Your task to perform on an android device: change the upload size in google photos Image 0: 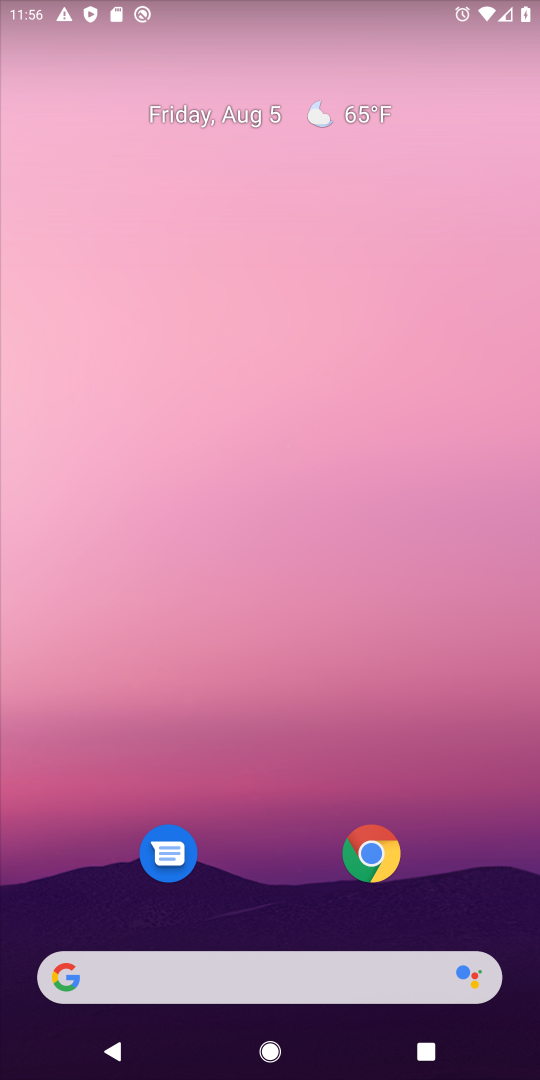
Step 0: drag from (231, 981) to (295, 164)
Your task to perform on an android device: change the upload size in google photos Image 1: 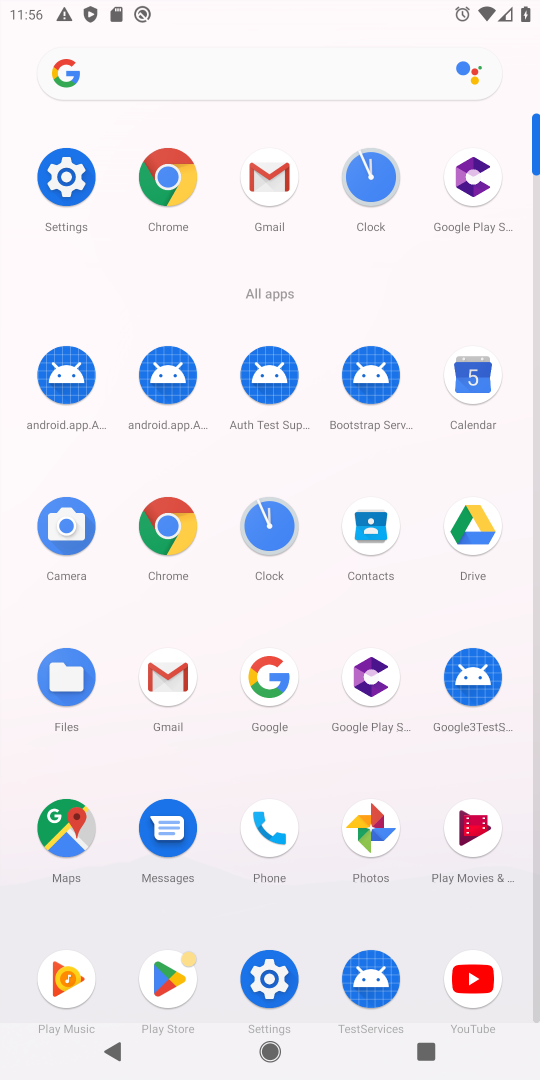
Step 1: click (353, 848)
Your task to perform on an android device: change the upload size in google photos Image 2: 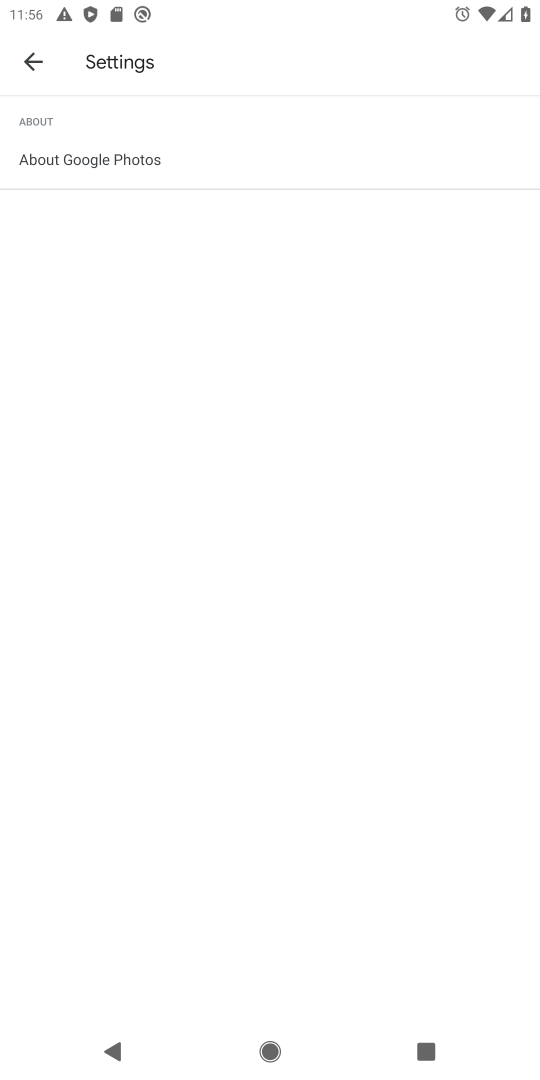
Step 2: click (26, 56)
Your task to perform on an android device: change the upload size in google photos Image 3: 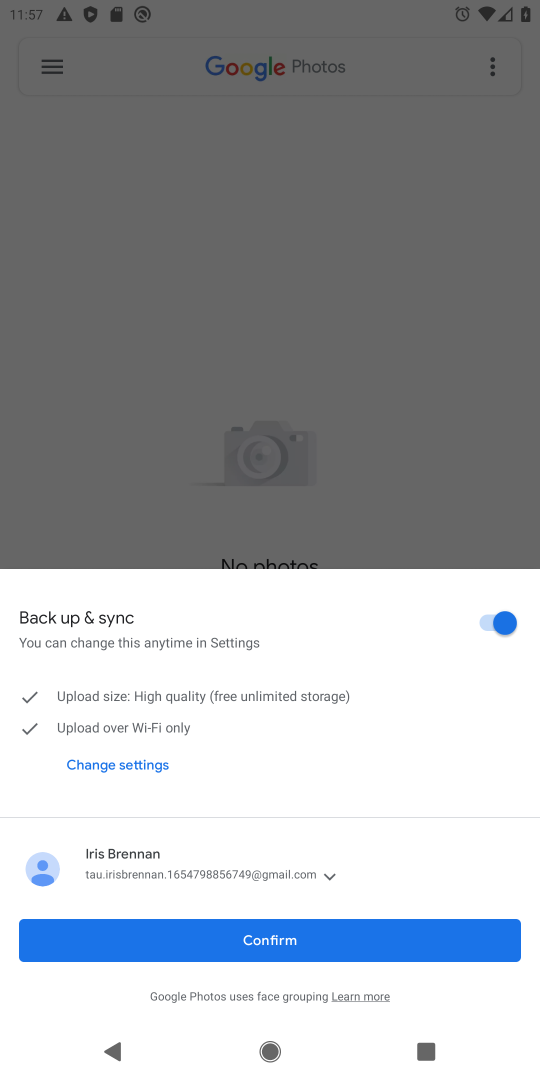
Step 3: click (256, 937)
Your task to perform on an android device: change the upload size in google photos Image 4: 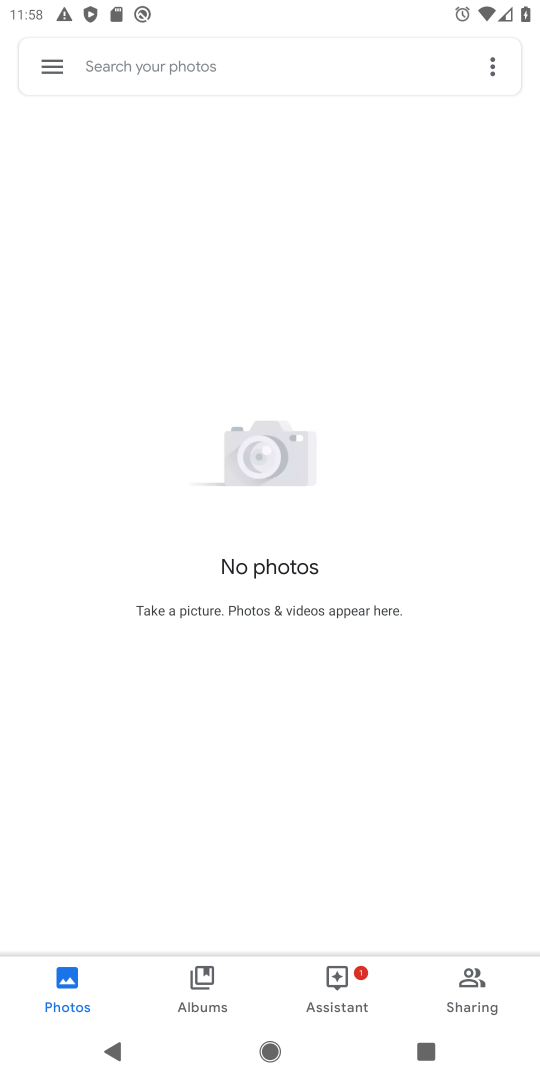
Step 4: click (55, 68)
Your task to perform on an android device: change the upload size in google photos Image 5: 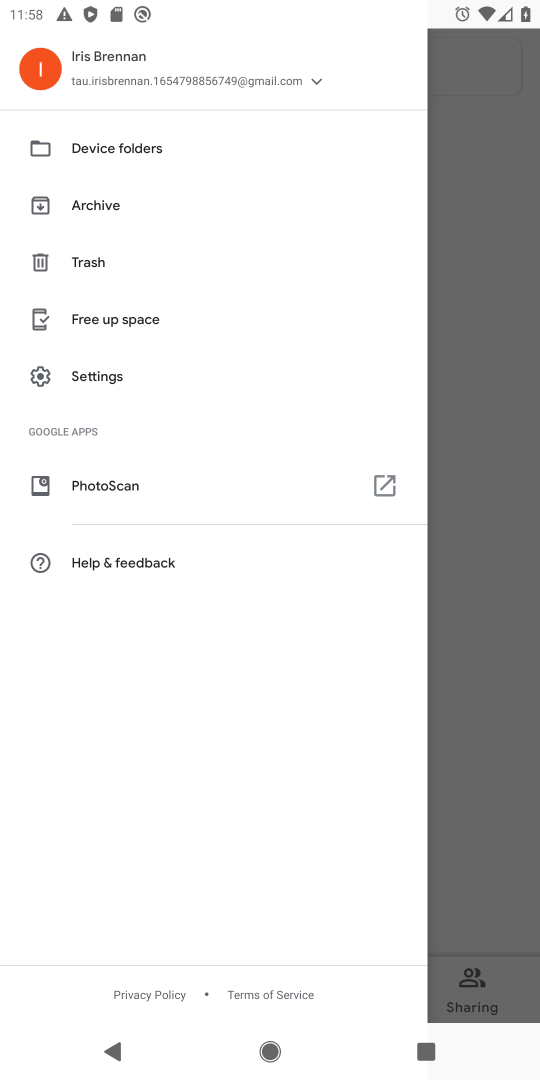
Step 5: click (83, 380)
Your task to perform on an android device: change the upload size in google photos Image 6: 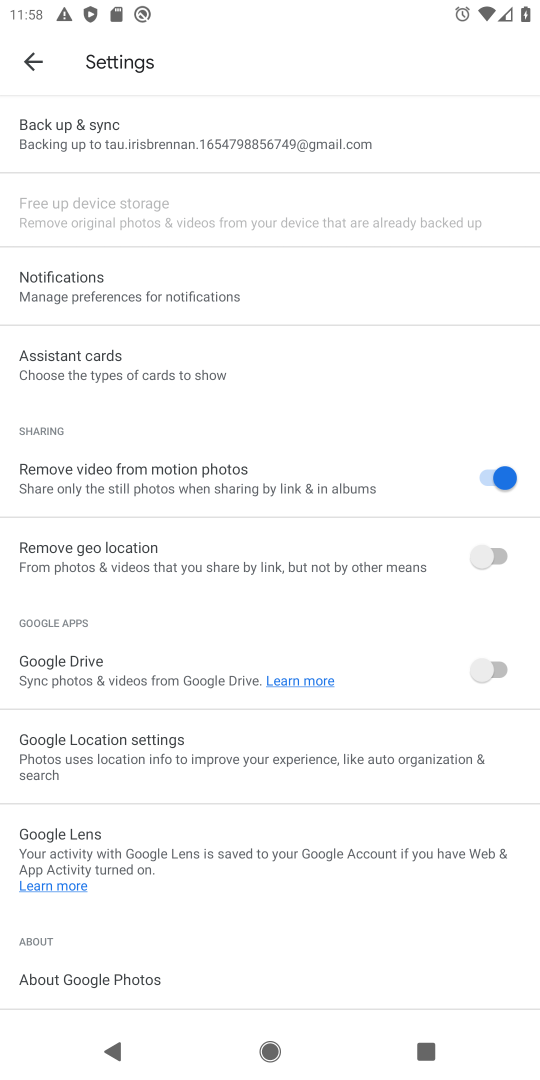
Step 6: click (144, 118)
Your task to perform on an android device: change the upload size in google photos Image 7: 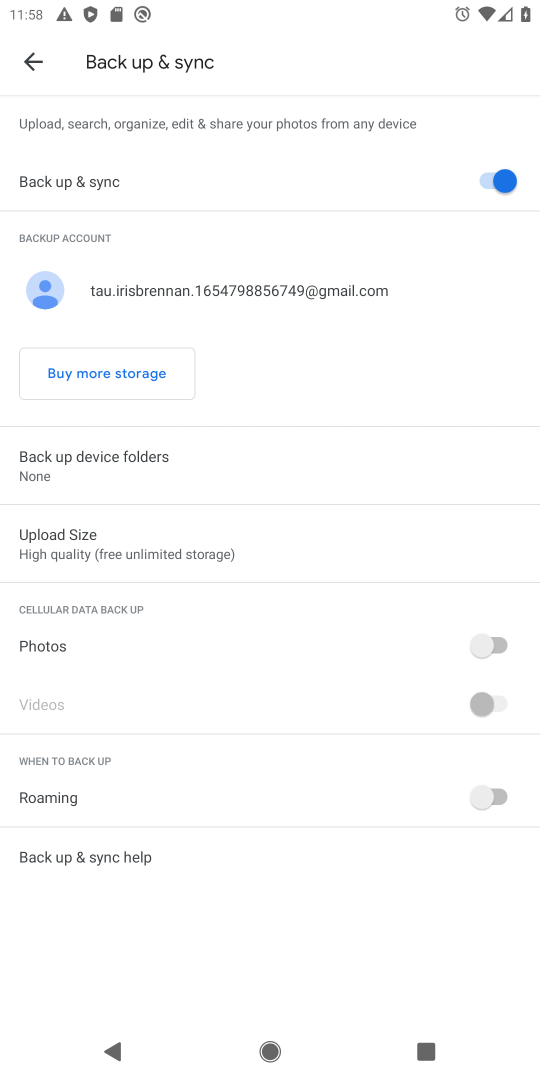
Step 7: click (115, 533)
Your task to perform on an android device: change the upload size in google photos Image 8: 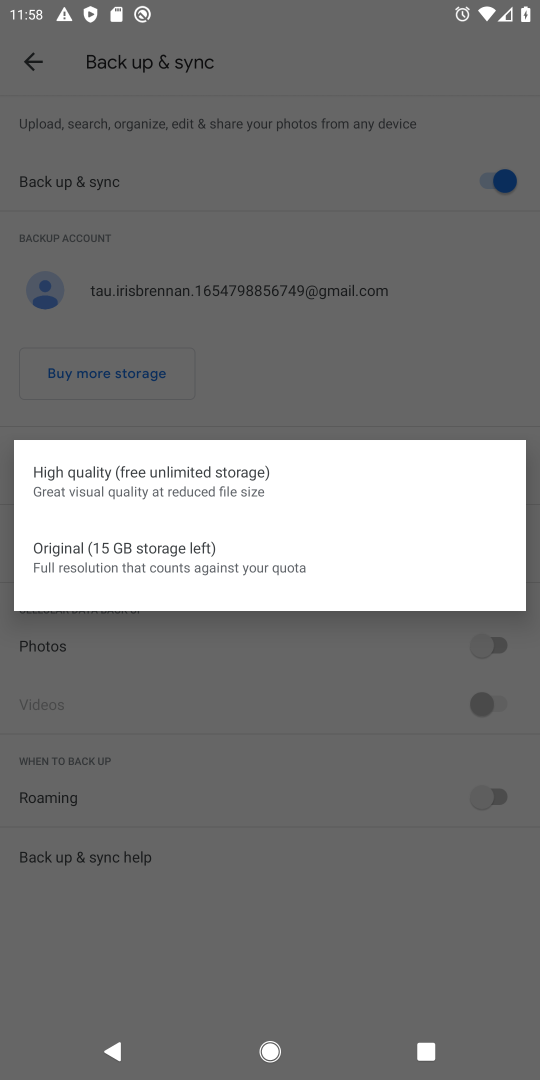
Step 8: click (123, 542)
Your task to perform on an android device: change the upload size in google photos Image 9: 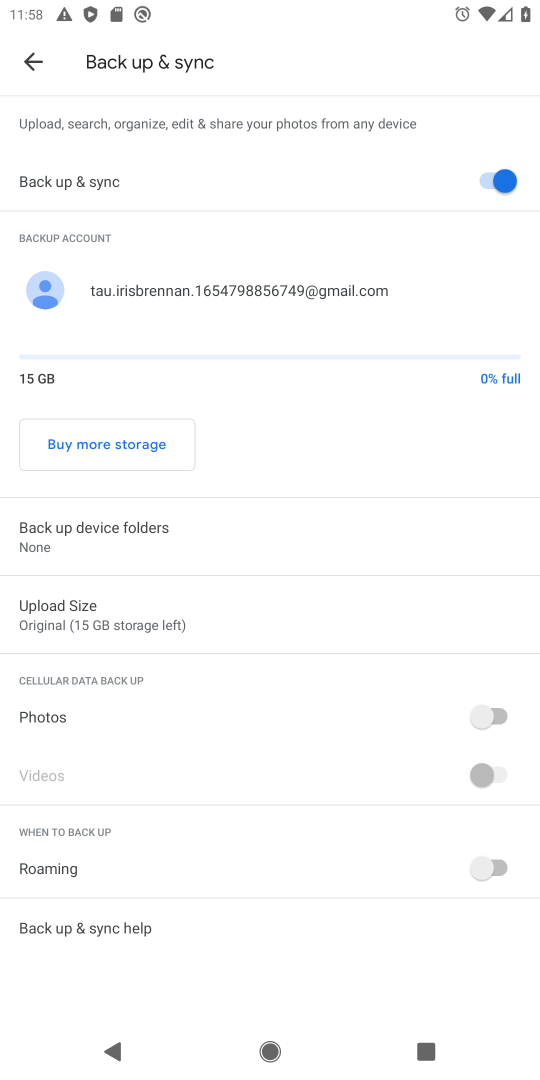
Step 9: task complete